Your task to perform on an android device: change the clock display to digital Image 0: 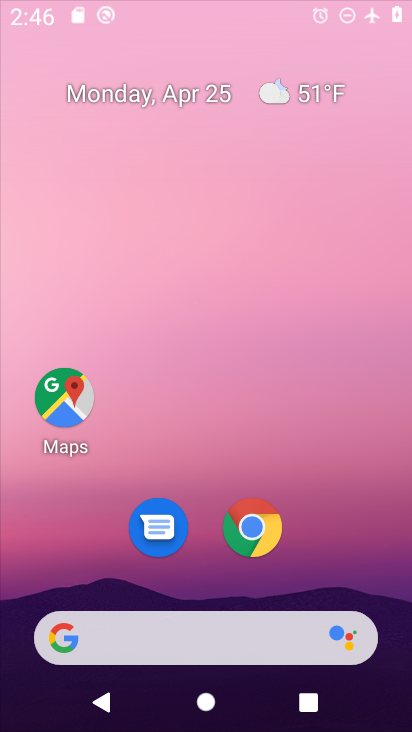
Step 0: click (234, 3)
Your task to perform on an android device: change the clock display to digital Image 1: 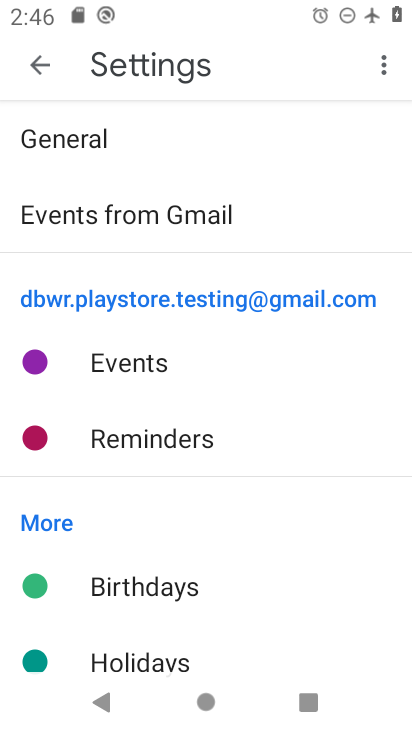
Step 1: press back button
Your task to perform on an android device: change the clock display to digital Image 2: 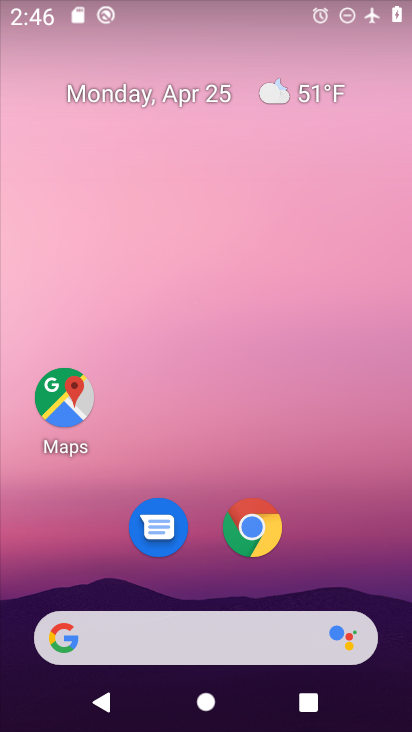
Step 2: drag from (365, 498) to (256, 9)
Your task to perform on an android device: change the clock display to digital Image 3: 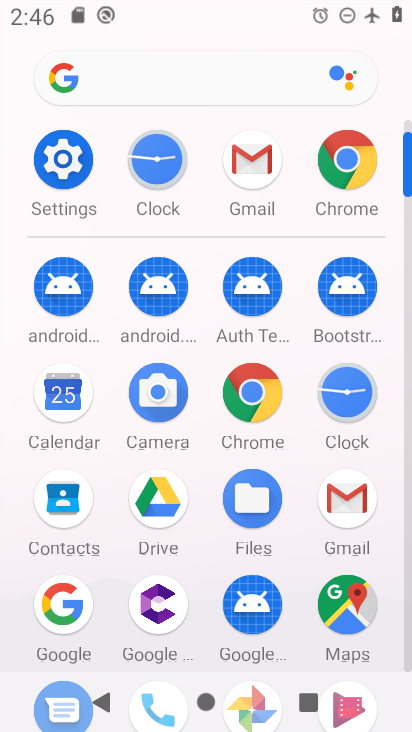
Step 3: drag from (5, 550) to (16, 230)
Your task to perform on an android device: change the clock display to digital Image 4: 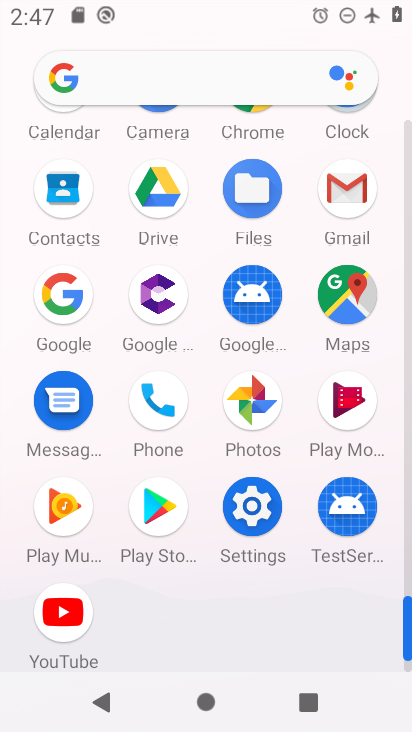
Step 4: drag from (16, 205) to (18, 467)
Your task to perform on an android device: change the clock display to digital Image 5: 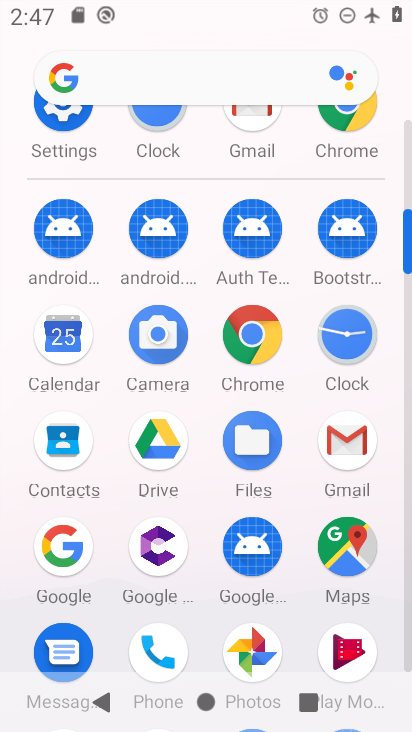
Step 5: click (350, 330)
Your task to perform on an android device: change the clock display to digital Image 6: 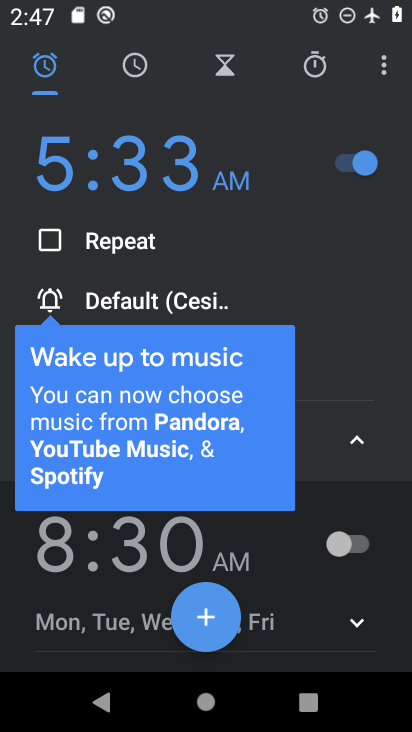
Step 6: task complete